Your task to perform on an android device: turn on bluetooth scan Image 0: 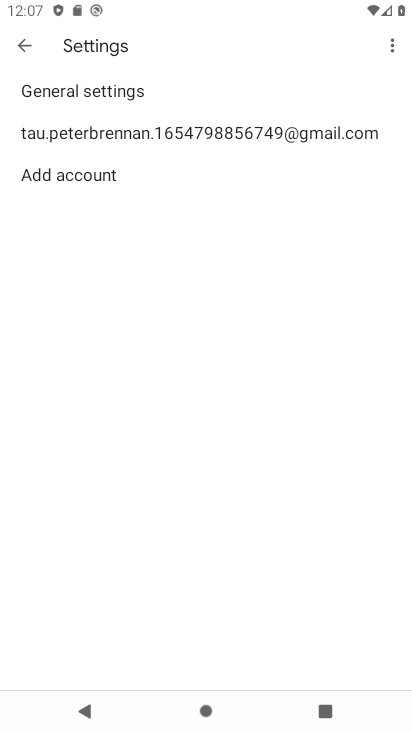
Step 0: press home button
Your task to perform on an android device: turn on bluetooth scan Image 1: 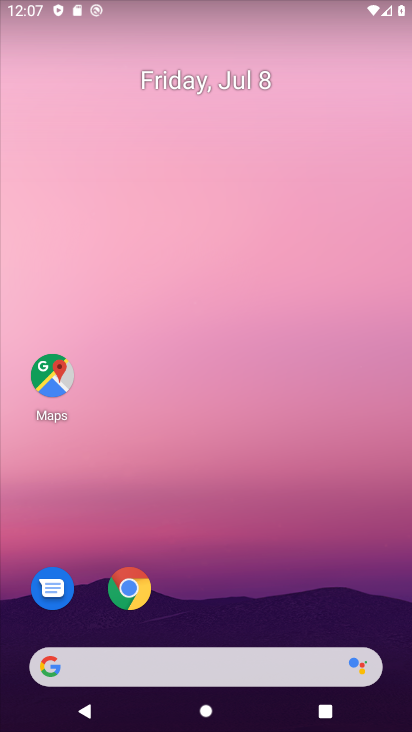
Step 1: drag from (203, 459) to (211, 94)
Your task to perform on an android device: turn on bluetooth scan Image 2: 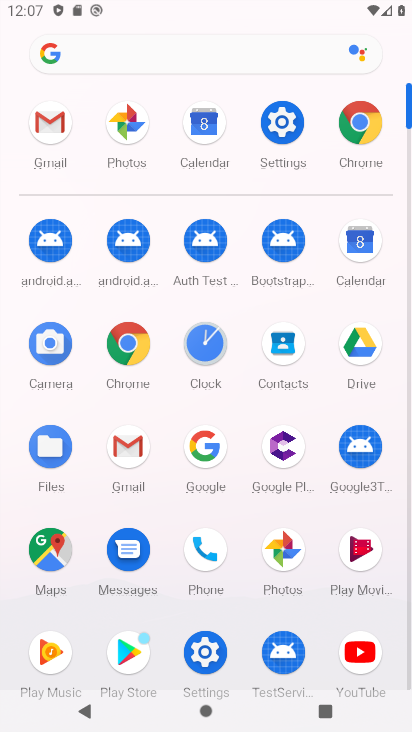
Step 2: click (284, 126)
Your task to perform on an android device: turn on bluetooth scan Image 3: 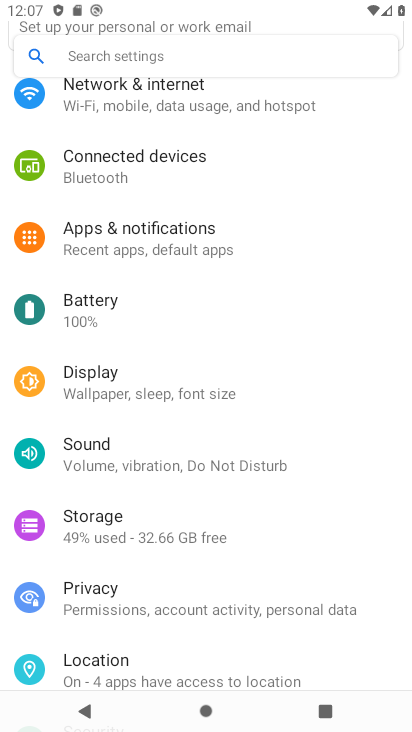
Step 3: drag from (189, 212) to (154, 547)
Your task to perform on an android device: turn on bluetooth scan Image 4: 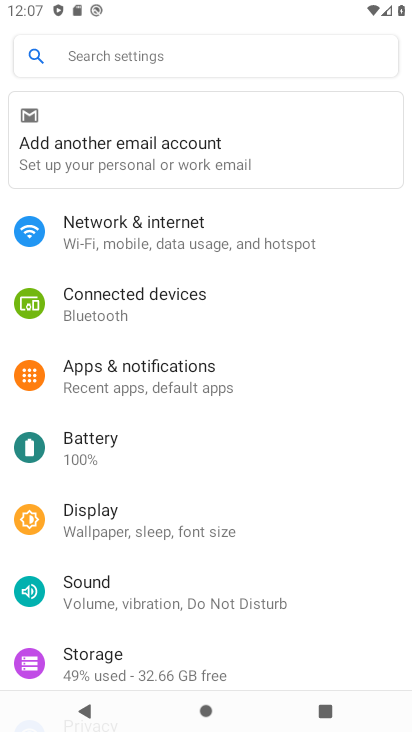
Step 4: drag from (108, 658) to (135, 419)
Your task to perform on an android device: turn on bluetooth scan Image 5: 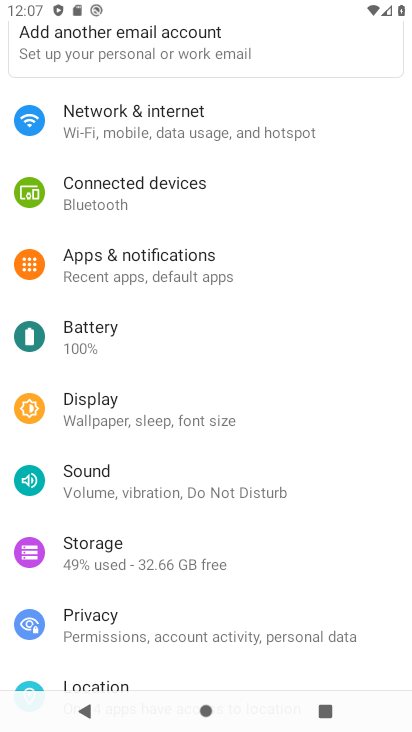
Step 5: click (78, 683)
Your task to perform on an android device: turn on bluetooth scan Image 6: 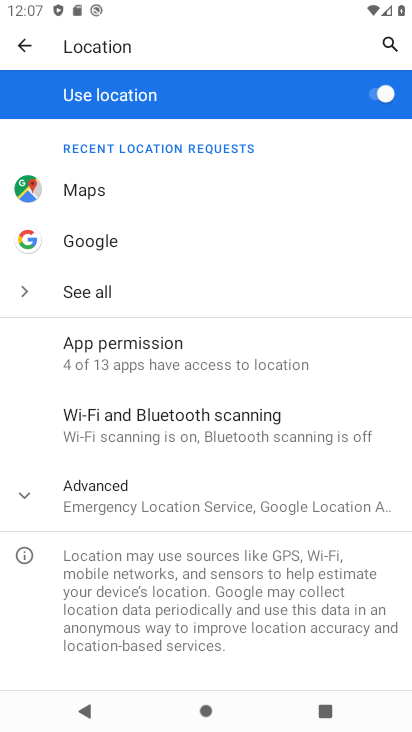
Step 6: click (140, 510)
Your task to perform on an android device: turn on bluetooth scan Image 7: 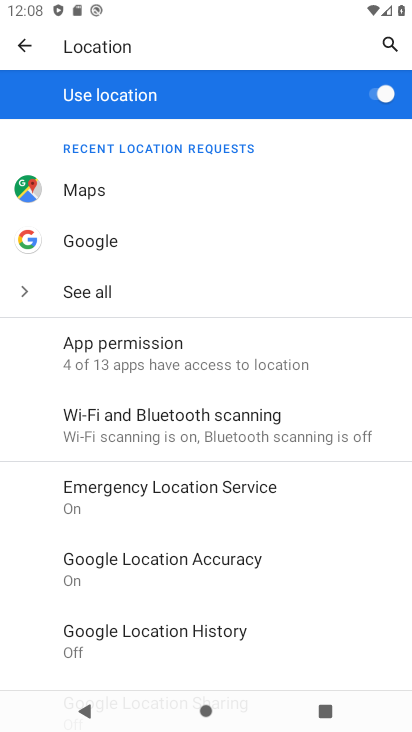
Step 7: click (194, 425)
Your task to perform on an android device: turn on bluetooth scan Image 8: 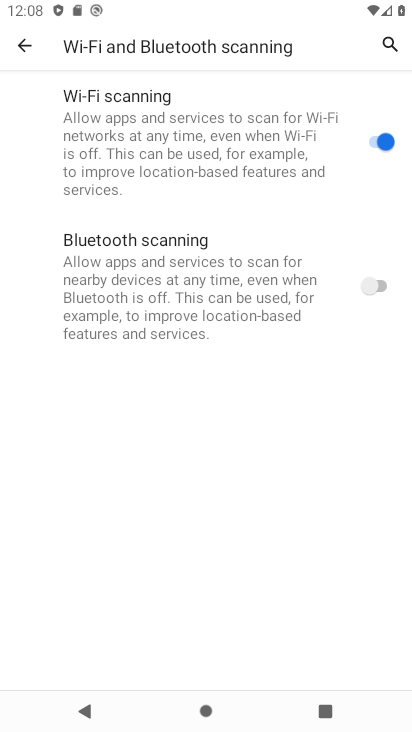
Step 8: click (375, 280)
Your task to perform on an android device: turn on bluetooth scan Image 9: 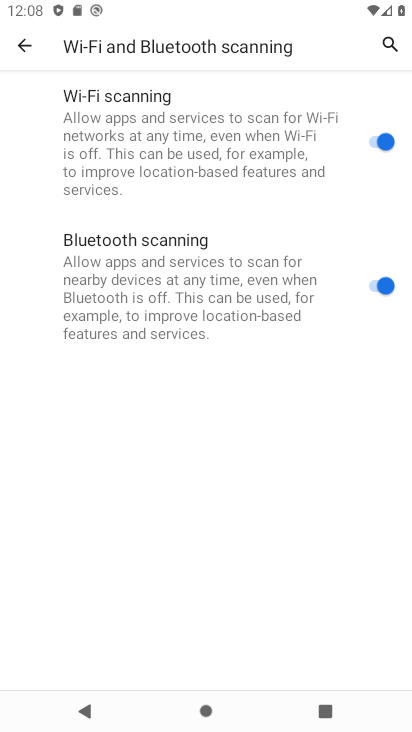
Step 9: task complete